Your task to perform on an android device: change your default location settings in chrome Image 0: 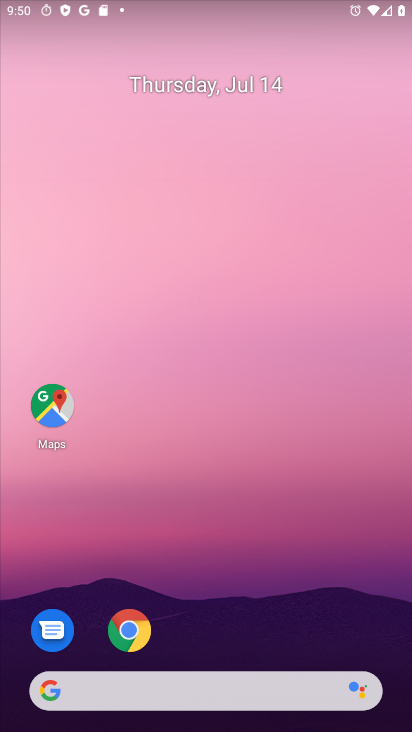
Step 0: click (118, 624)
Your task to perform on an android device: change your default location settings in chrome Image 1: 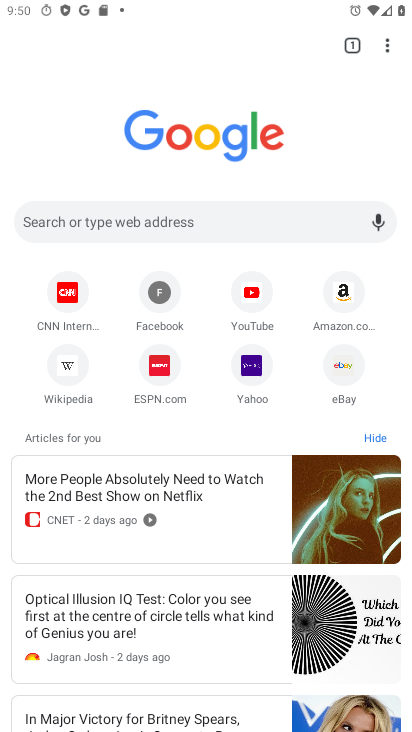
Step 1: click (387, 47)
Your task to perform on an android device: change your default location settings in chrome Image 2: 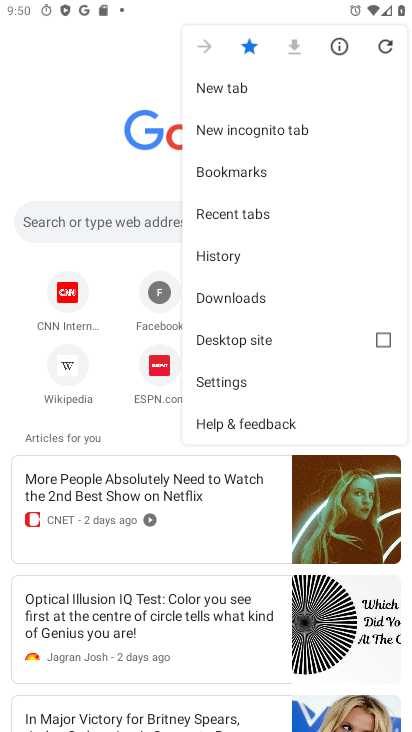
Step 2: click (239, 380)
Your task to perform on an android device: change your default location settings in chrome Image 3: 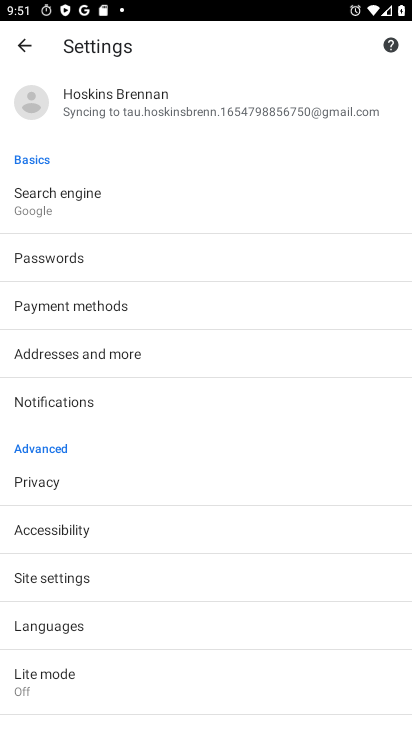
Step 3: click (42, 584)
Your task to perform on an android device: change your default location settings in chrome Image 4: 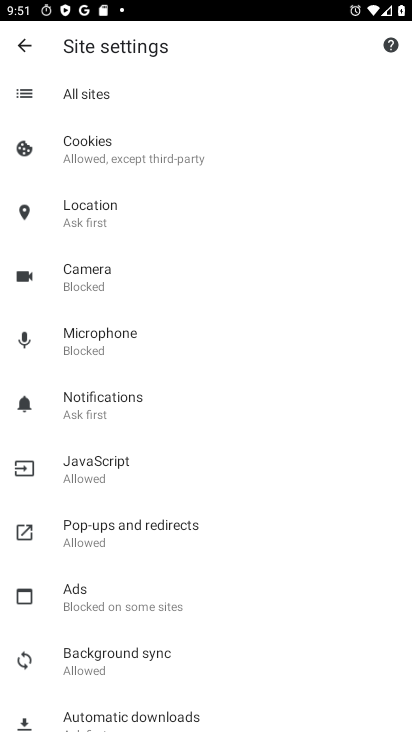
Step 4: click (116, 218)
Your task to perform on an android device: change your default location settings in chrome Image 5: 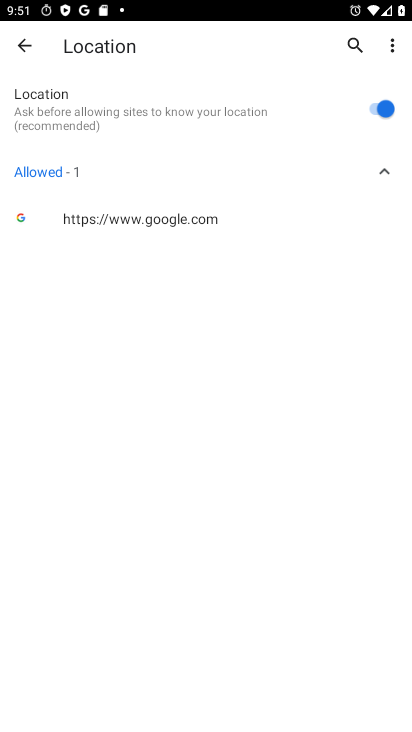
Step 5: task complete